Your task to perform on an android device: toggle javascript in the chrome app Image 0: 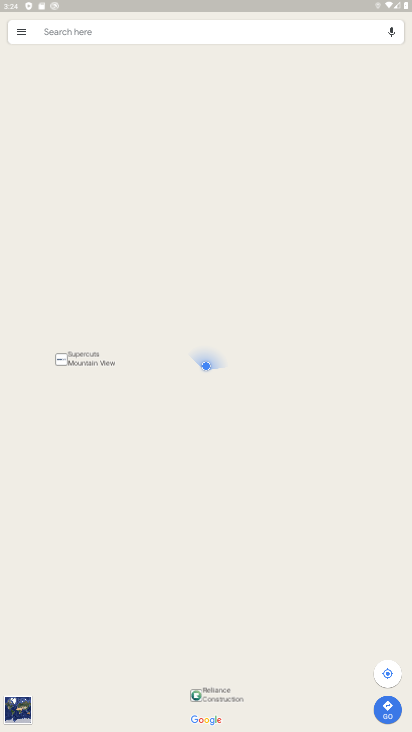
Step 0: press home button
Your task to perform on an android device: toggle javascript in the chrome app Image 1: 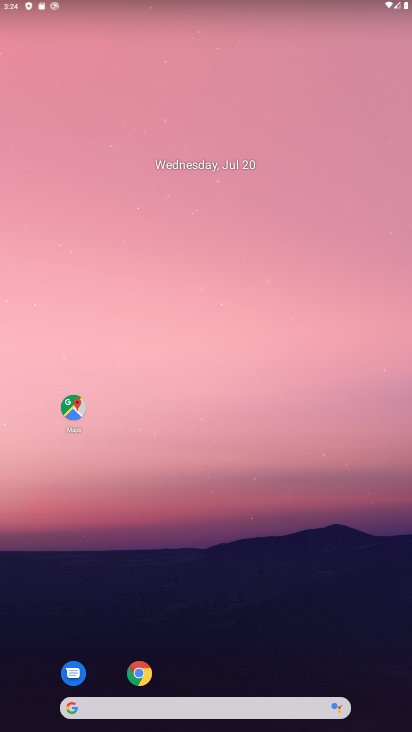
Step 1: click (141, 674)
Your task to perform on an android device: toggle javascript in the chrome app Image 2: 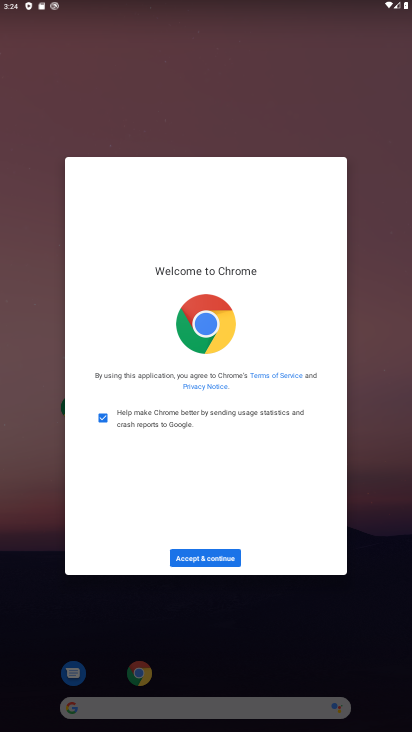
Step 2: click (212, 555)
Your task to perform on an android device: toggle javascript in the chrome app Image 3: 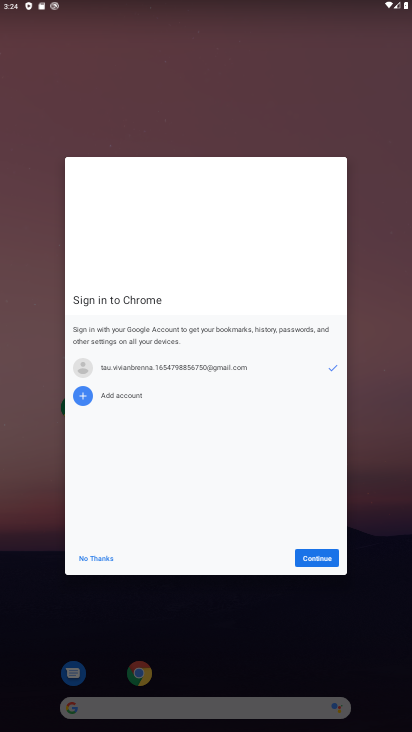
Step 3: click (308, 557)
Your task to perform on an android device: toggle javascript in the chrome app Image 4: 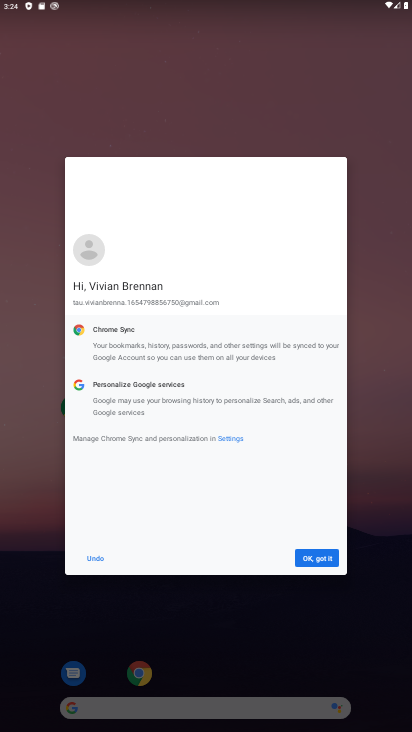
Step 4: click (308, 557)
Your task to perform on an android device: toggle javascript in the chrome app Image 5: 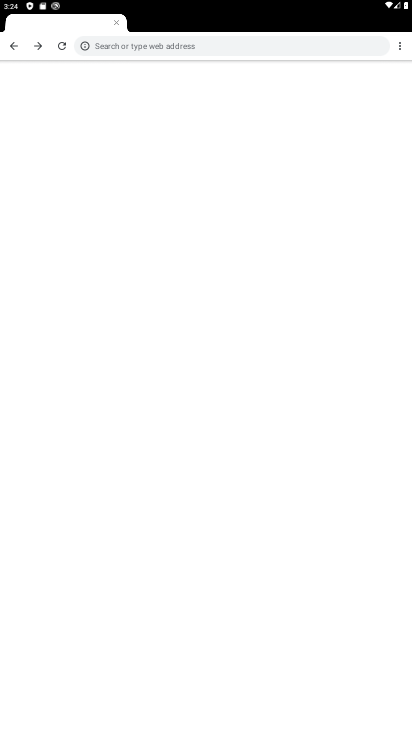
Step 5: click (393, 42)
Your task to perform on an android device: toggle javascript in the chrome app Image 6: 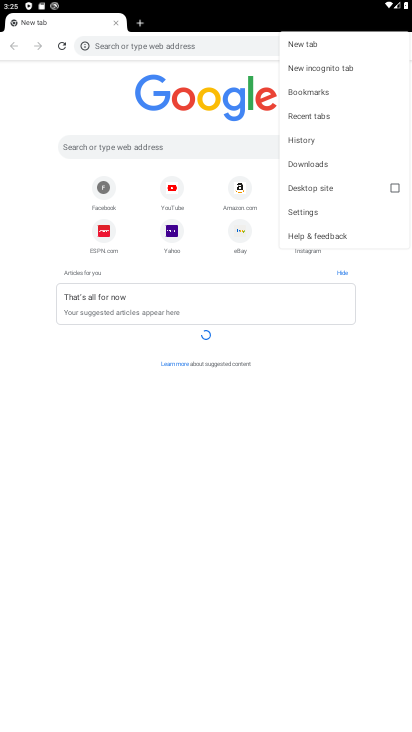
Step 6: click (304, 213)
Your task to perform on an android device: toggle javascript in the chrome app Image 7: 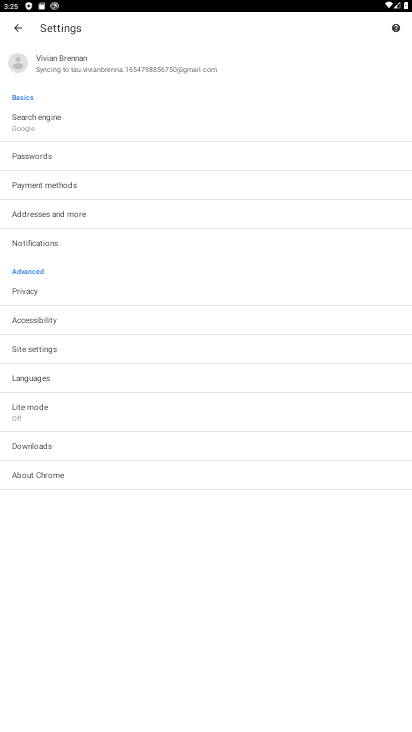
Step 7: click (74, 348)
Your task to perform on an android device: toggle javascript in the chrome app Image 8: 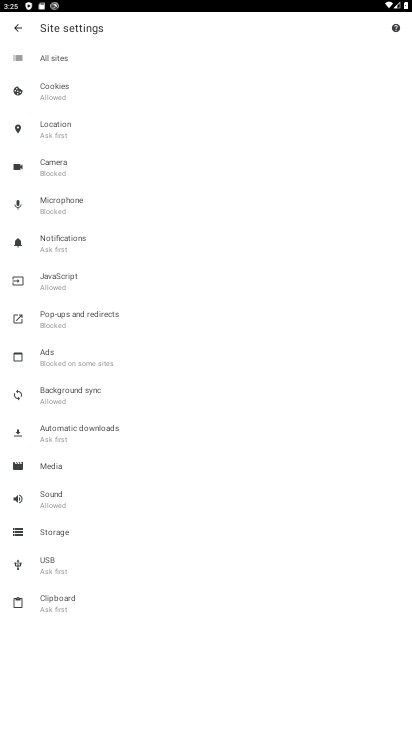
Step 8: click (69, 278)
Your task to perform on an android device: toggle javascript in the chrome app Image 9: 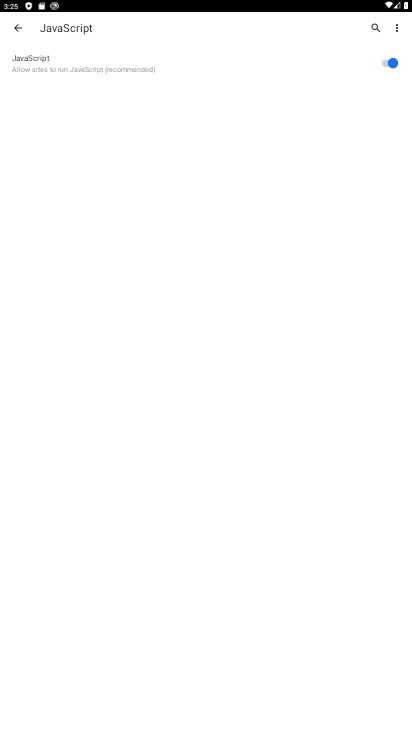
Step 9: click (378, 60)
Your task to perform on an android device: toggle javascript in the chrome app Image 10: 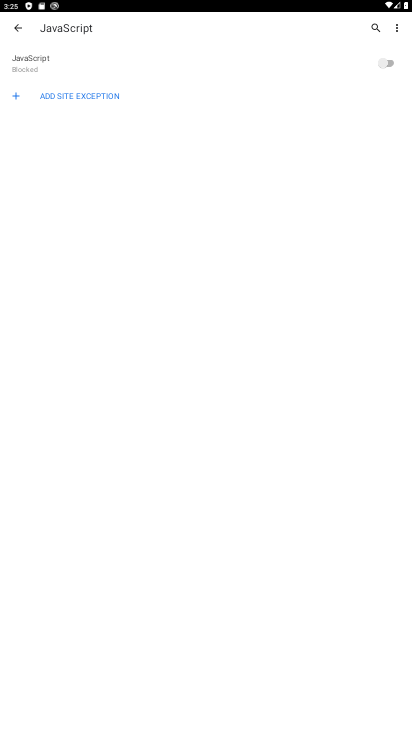
Step 10: task complete